Your task to perform on an android device: Open Android settings Image 0: 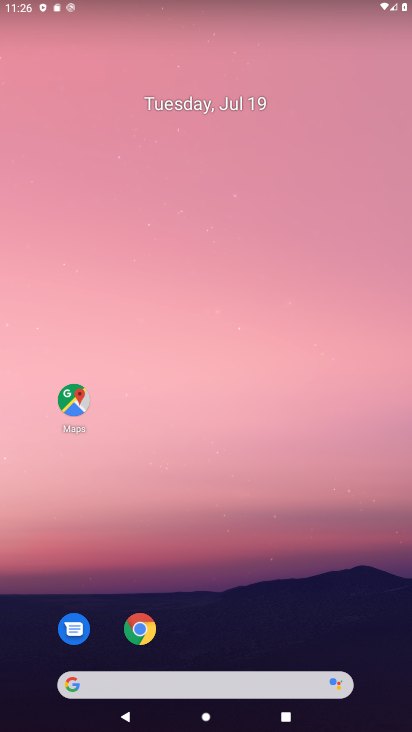
Step 0: drag from (343, 595) to (343, 156)
Your task to perform on an android device: Open Android settings Image 1: 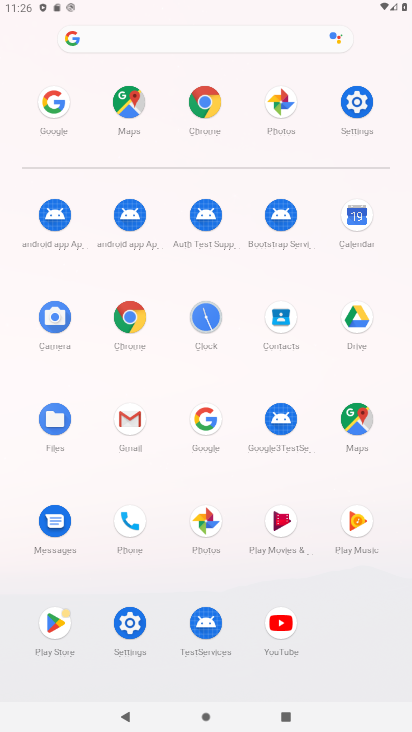
Step 1: click (360, 102)
Your task to perform on an android device: Open Android settings Image 2: 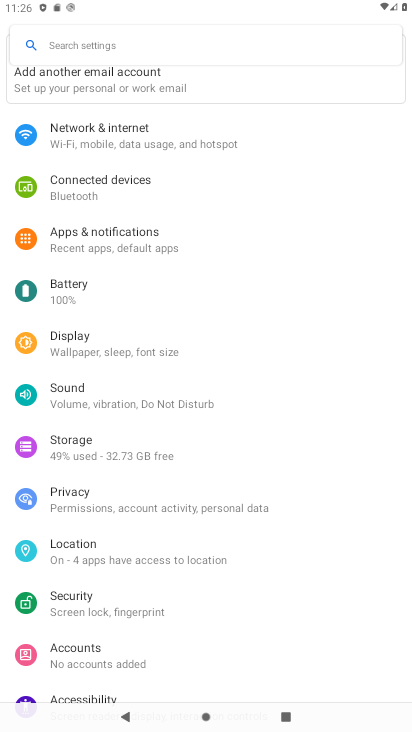
Step 2: drag from (328, 186) to (315, 370)
Your task to perform on an android device: Open Android settings Image 3: 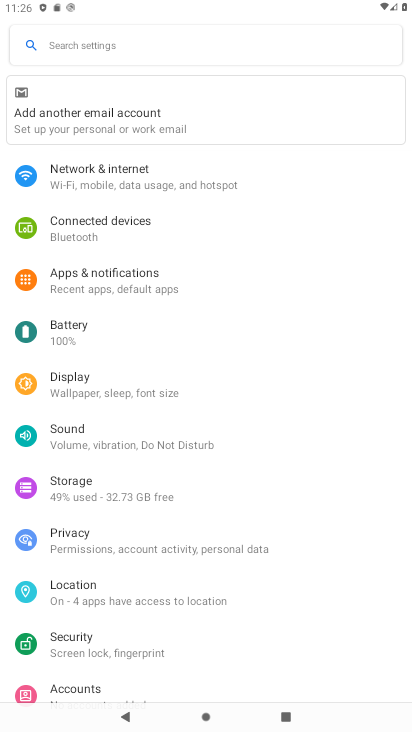
Step 3: drag from (320, 420) to (327, 344)
Your task to perform on an android device: Open Android settings Image 4: 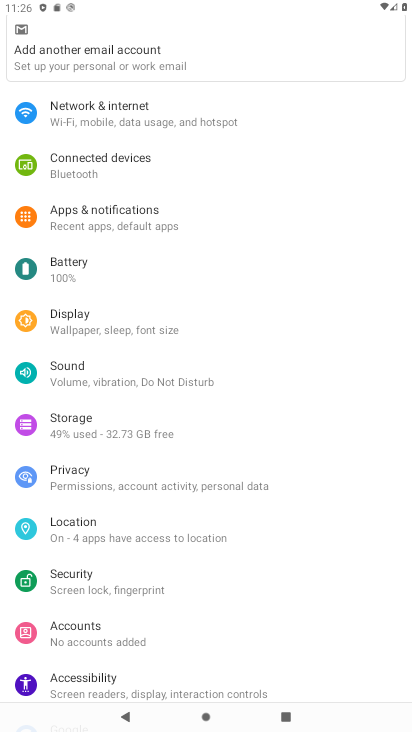
Step 4: drag from (338, 424) to (331, 331)
Your task to perform on an android device: Open Android settings Image 5: 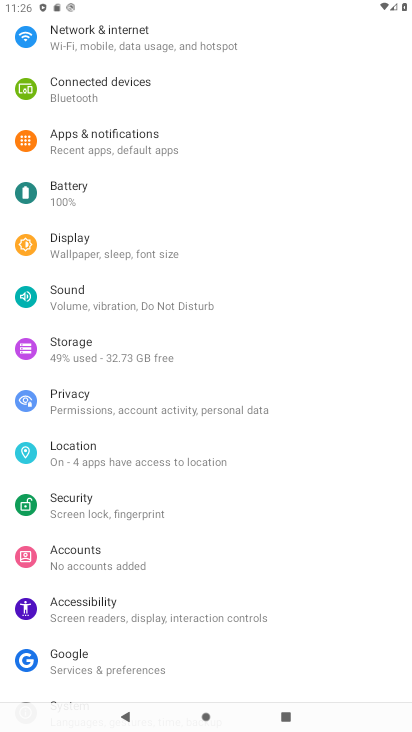
Step 5: drag from (328, 444) to (336, 340)
Your task to perform on an android device: Open Android settings Image 6: 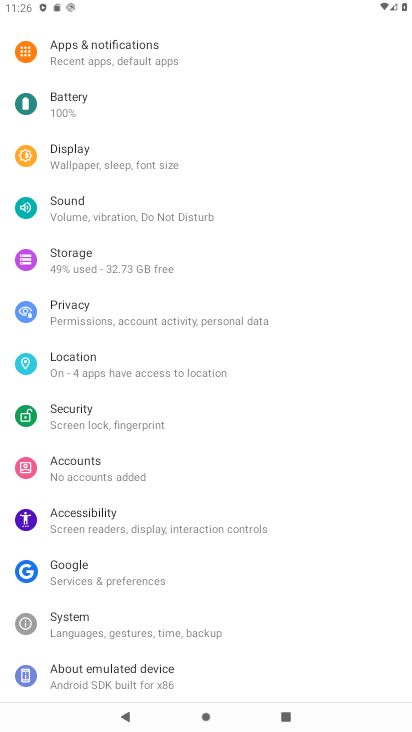
Step 6: drag from (324, 439) to (326, 354)
Your task to perform on an android device: Open Android settings Image 7: 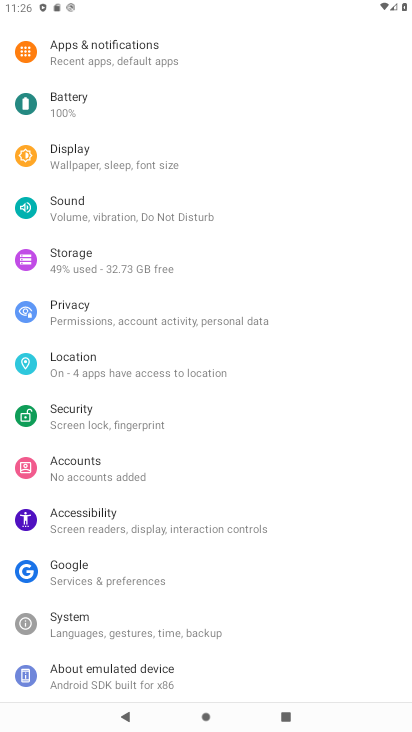
Step 7: click (237, 620)
Your task to perform on an android device: Open Android settings Image 8: 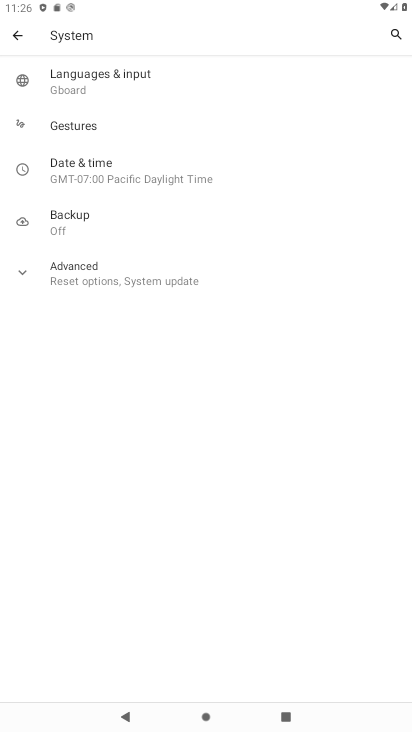
Step 8: click (242, 287)
Your task to perform on an android device: Open Android settings Image 9: 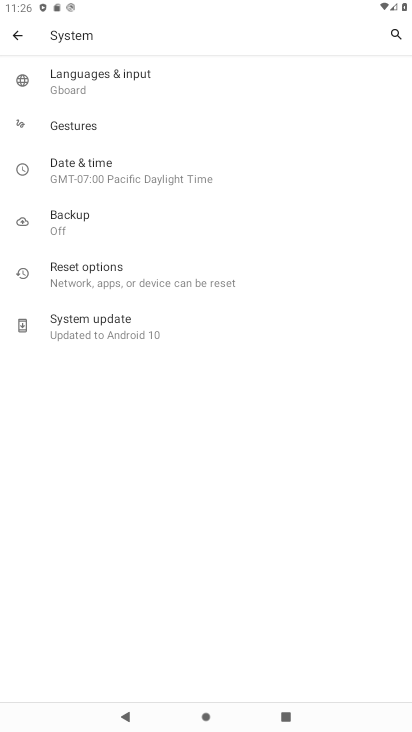
Step 9: click (138, 335)
Your task to perform on an android device: Open Android settings Image 10: 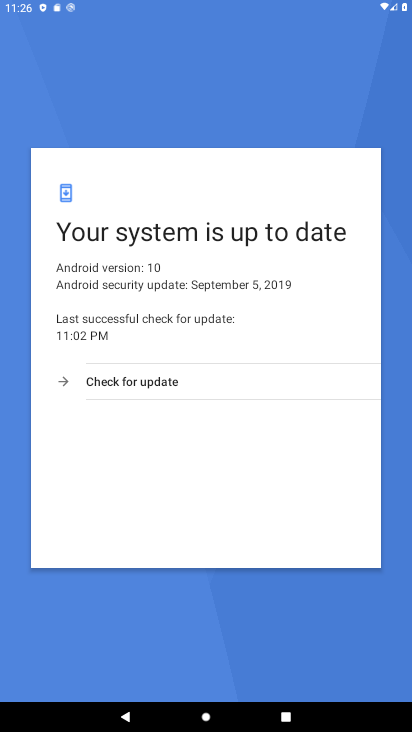
Step 10: task complete